Your task to perform on an android device: turn vacation reply on in the gmail app Image 0: 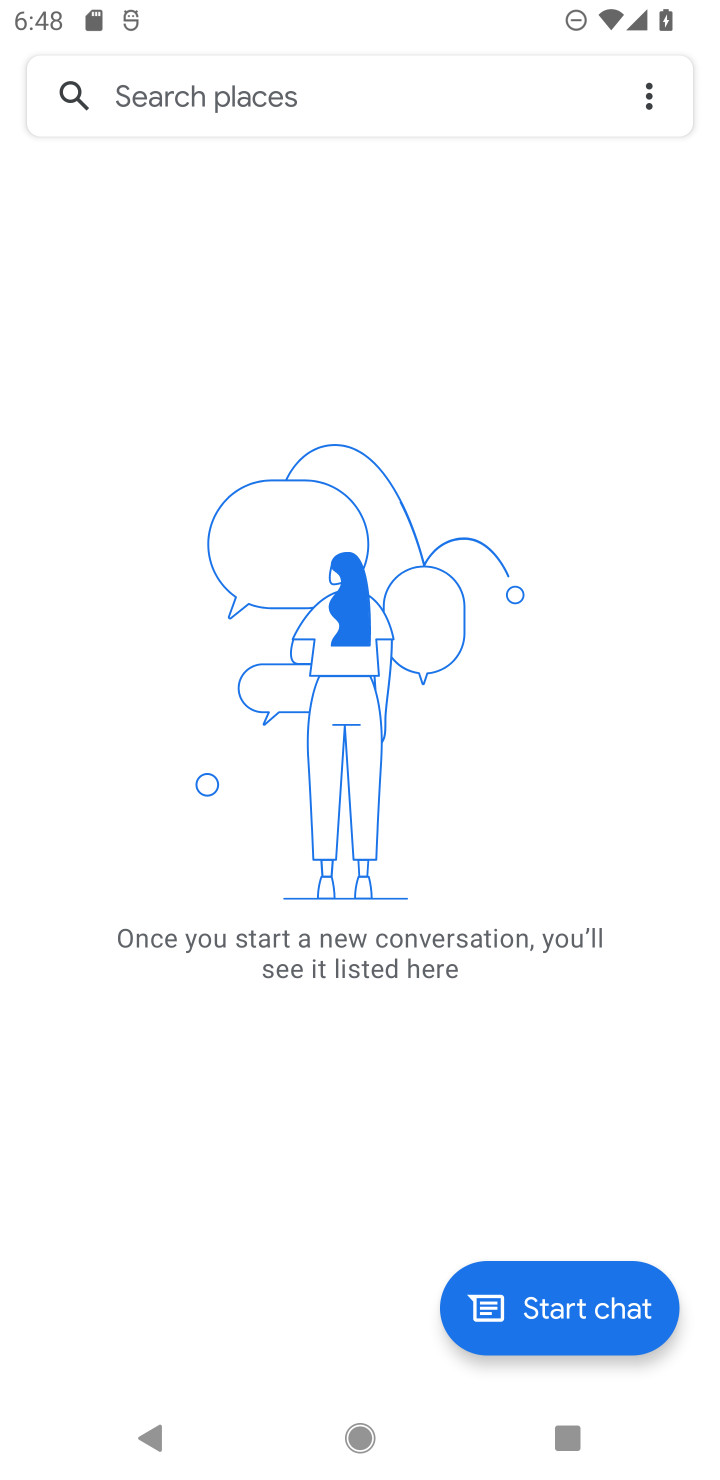
Step 0: press home button
Your task to perform on an android device: turn vacation reply on in the gmail app Image 1: 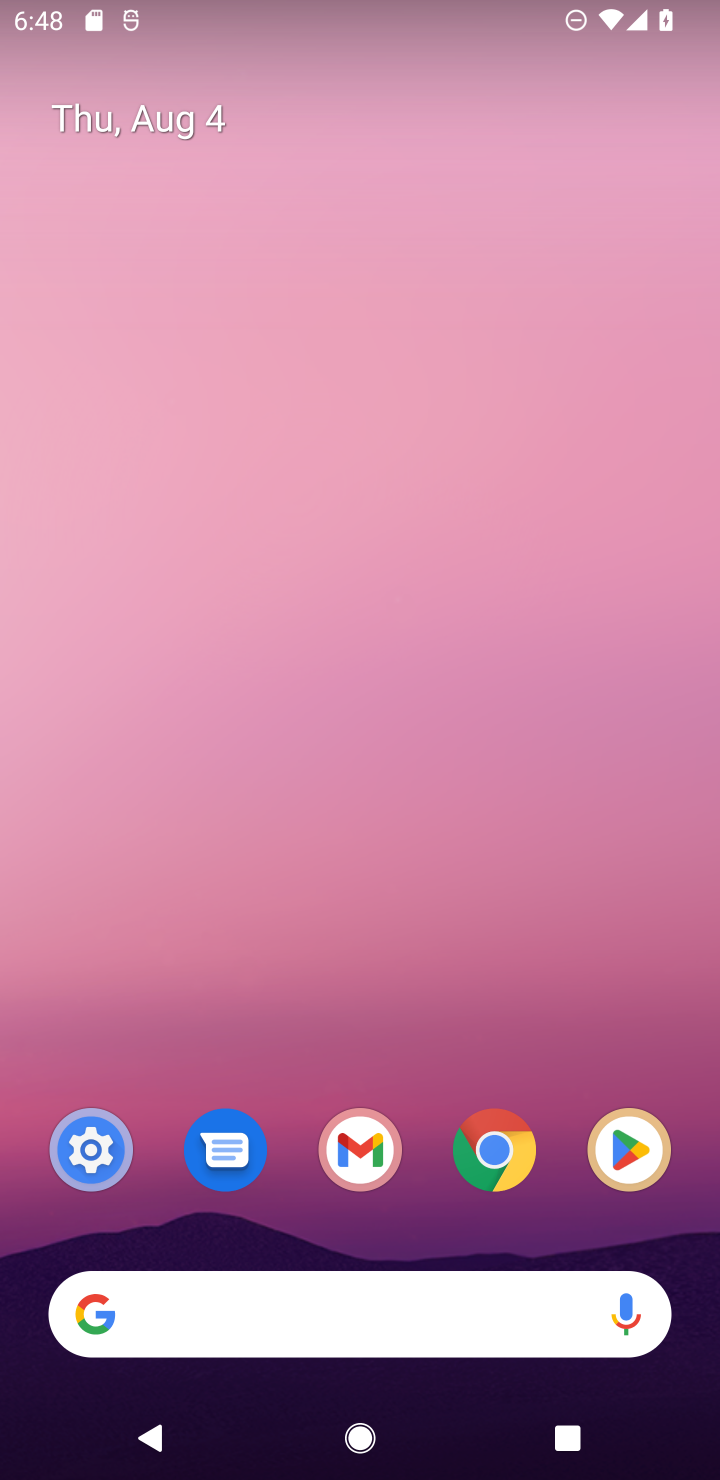
Step 1: drag from (358, 1150) to (353, 177)
Your task to perform on an android device: turn vacation reply on in the gmail app Image 2: 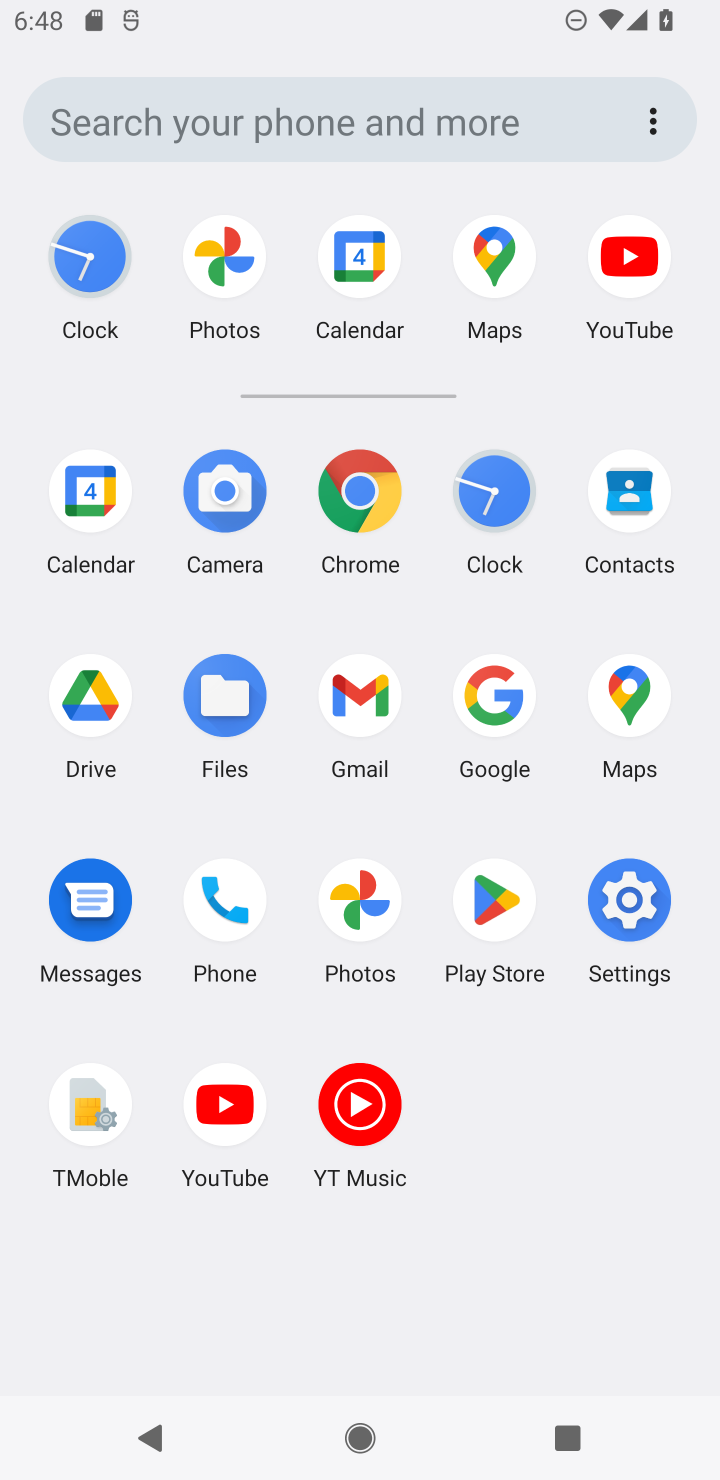
Step 2: click (351, 671)
Your task to perform on an android device: turn vacation reply on in the gmail app Image 3: 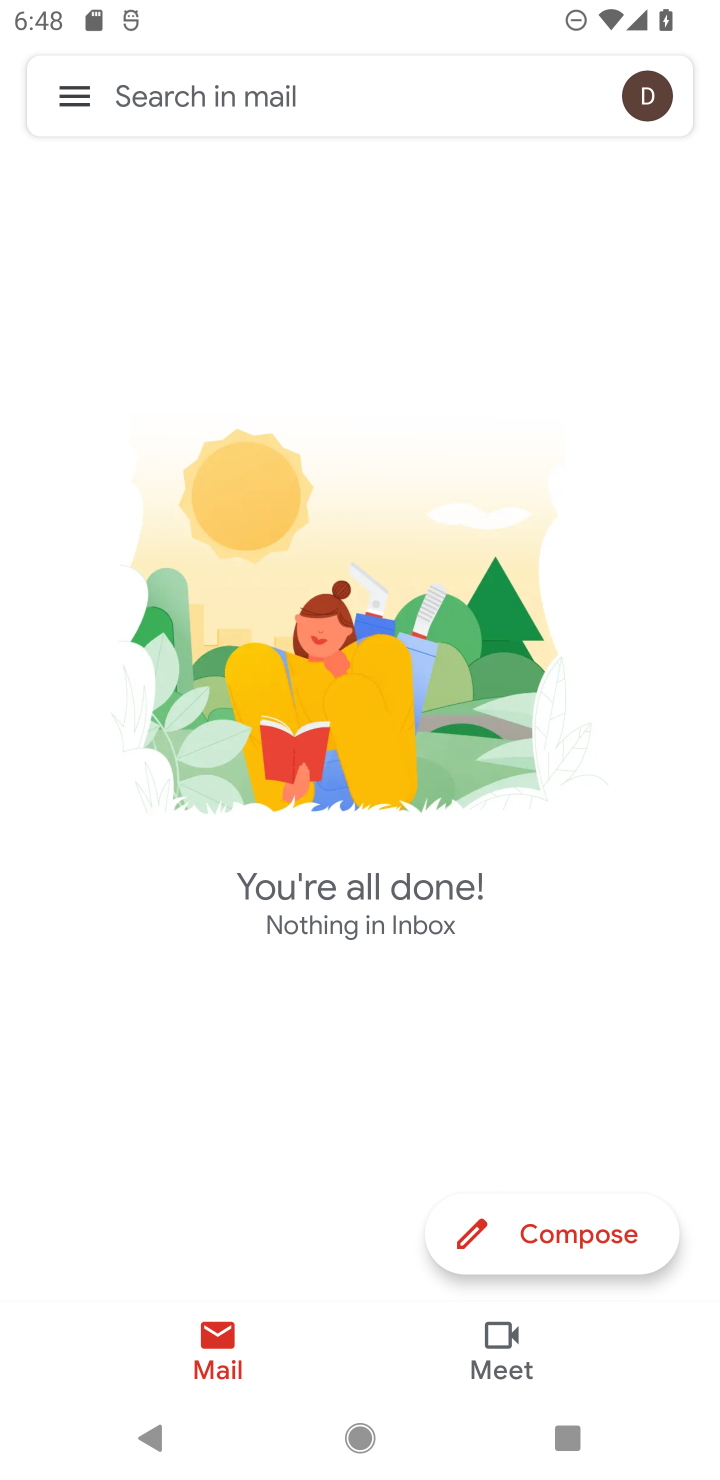
Step 3: click (56, 98)
Your task to perform on an android device: turn vacation reply on in the gmail app Image 4: 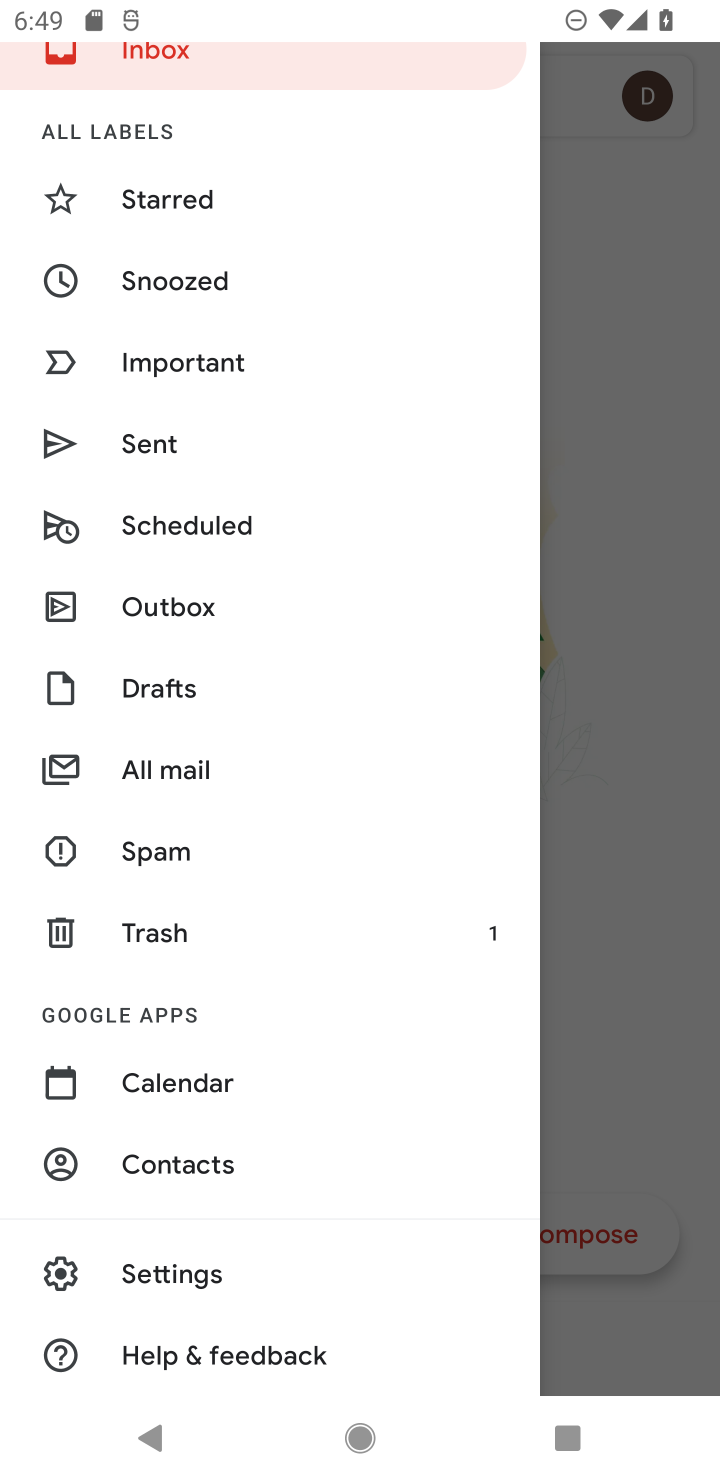
Step 4: click (222, 1290)
Your task to perform on an android device: turn vacation reply on in the gmail app Image 5: 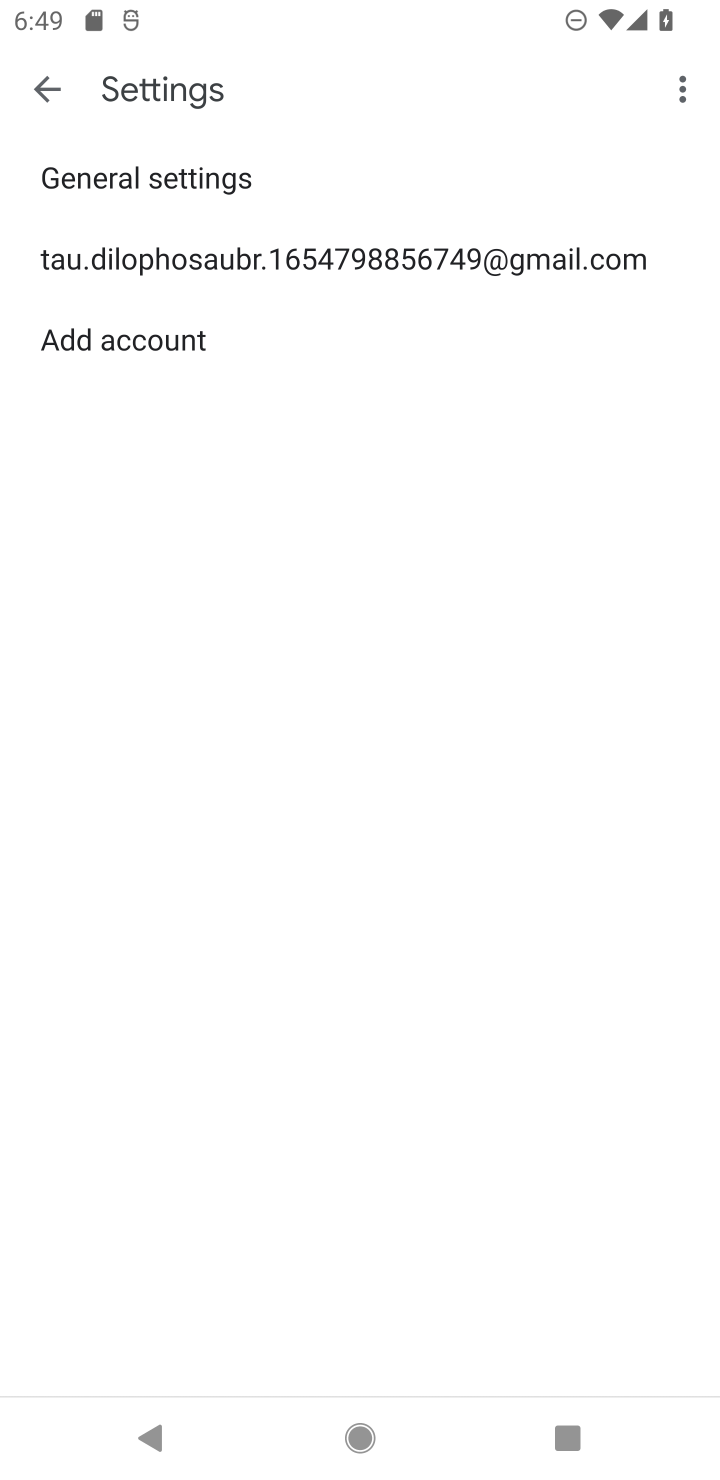
Step 5: click (337, 273)
Your task to perform on an android device: turn vacation reply on in the gmail app Image 6: 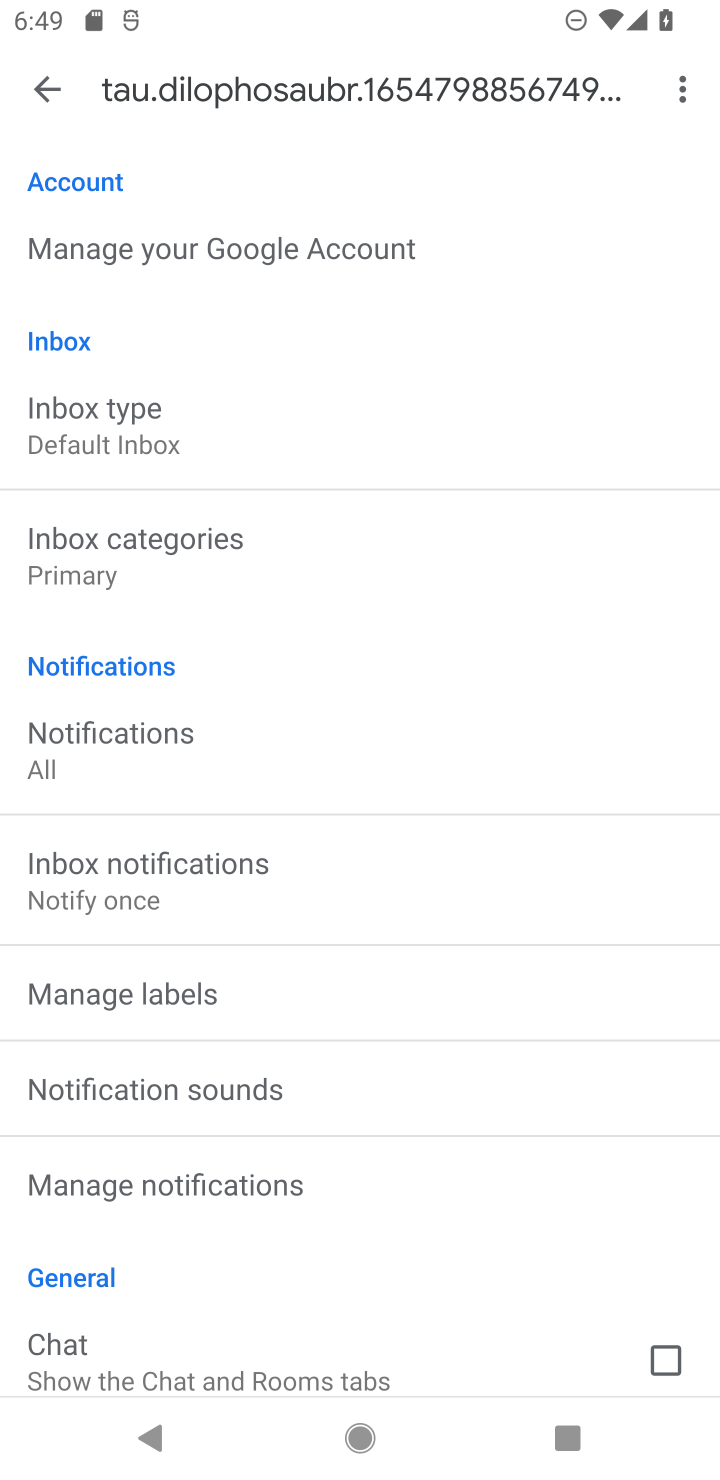
Step 6: drag from (187, 1271) to (283, 423)
Your task to perform on an android device: turn vacation reply on in the gmail app Image 7: 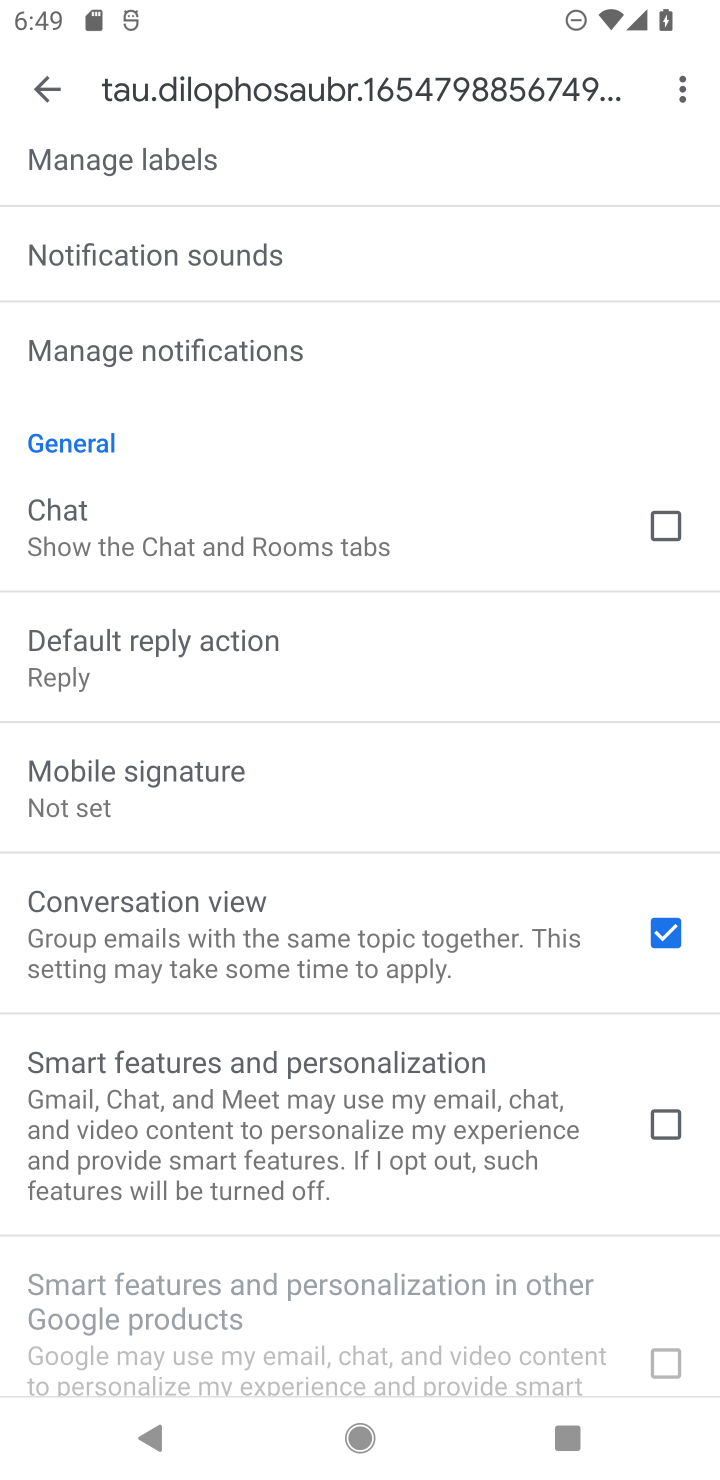
Step 7: drag from (451, 1161) to (434, 391)
Your task to perform on an android device: turn vacation reply on in the gmail app Image 8: 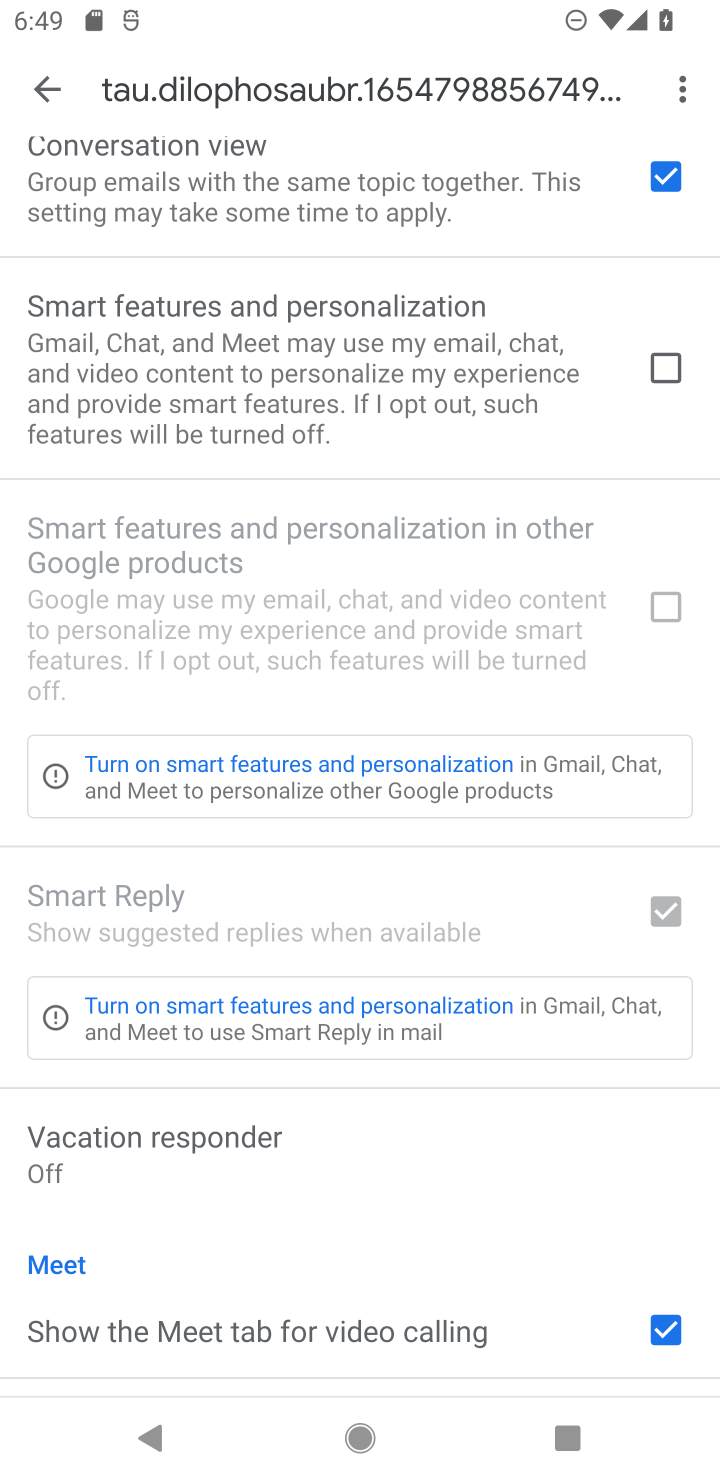
Step 8: click (224, 1164)
Your task to perform on an android device: turn vacation reply on in the gmail app Image 9: 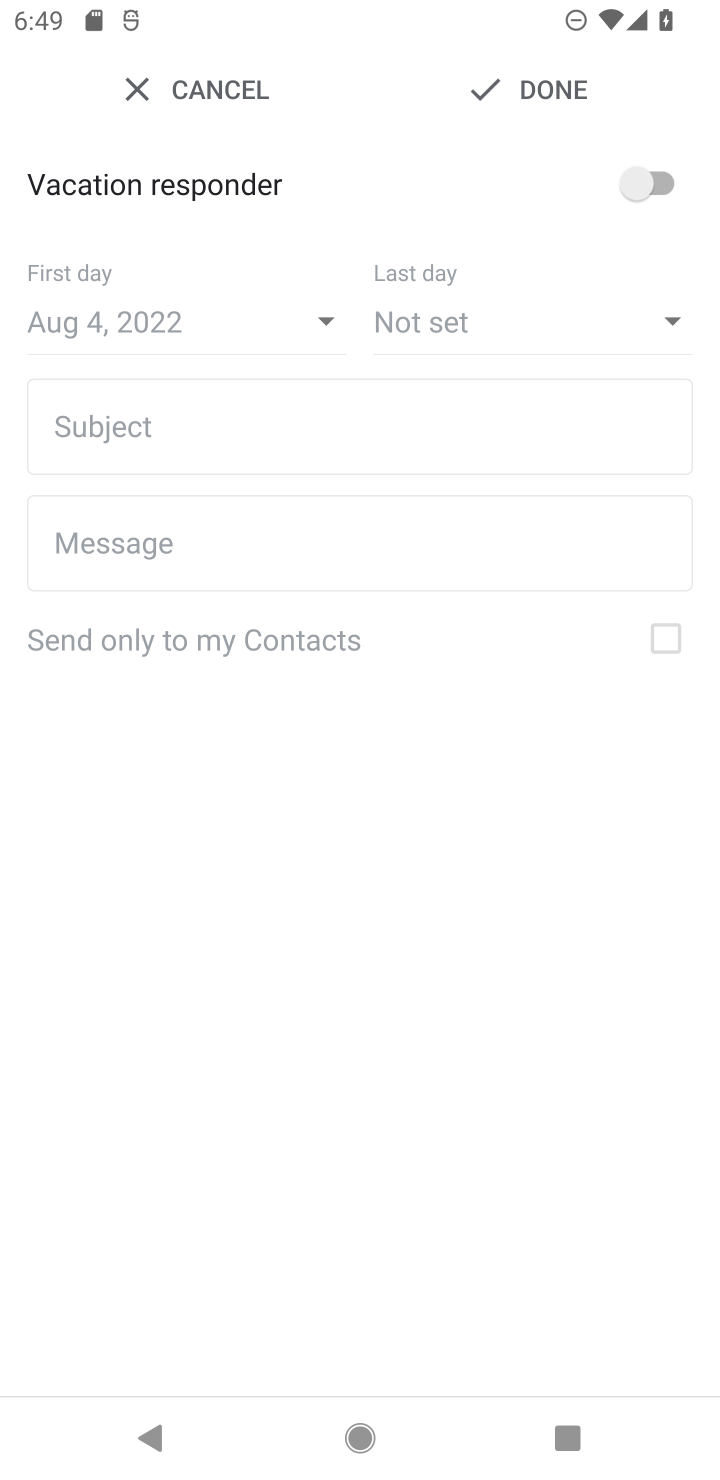
Step 9: click (561, 96)
Your task to perform on an android device: turn vacation reply on in the gmail app Image 10: 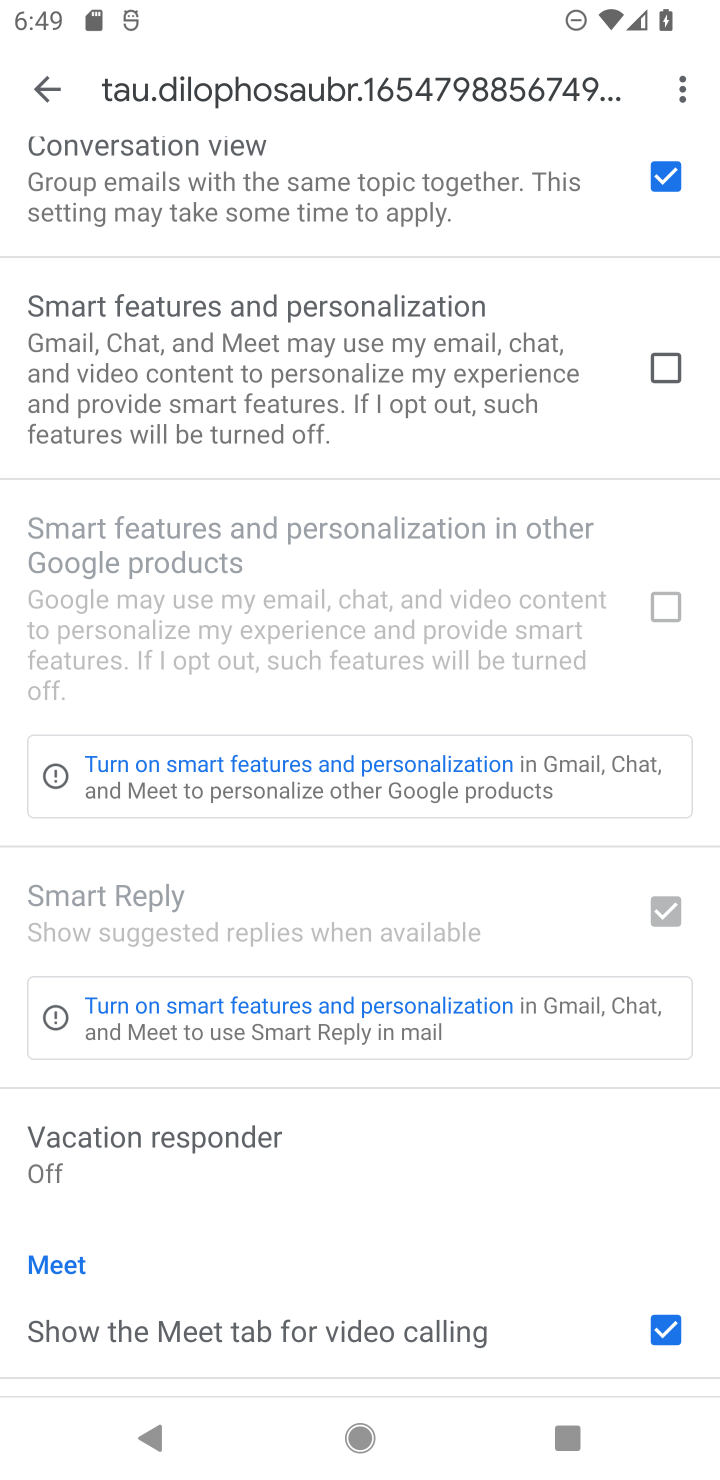
Step 10: task complete